Your task to perform on an android device: When is my next appointment? Image 0: 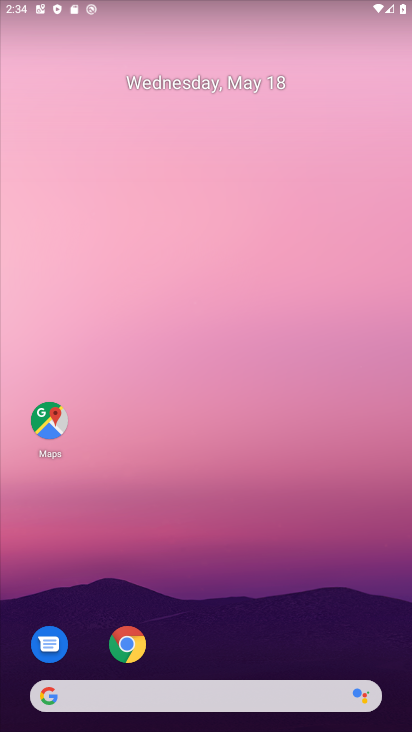
Step 0: drag from (179, 722) to (160, 185)
Your task to perform on an android device: When is my next appointment? Image 1: 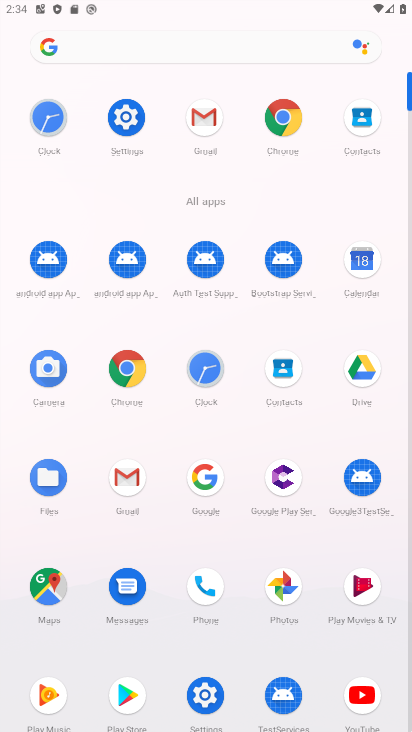
Step 1: click (359, 259)
Your task to perform on an android device: When is my next appointment? Image 2: 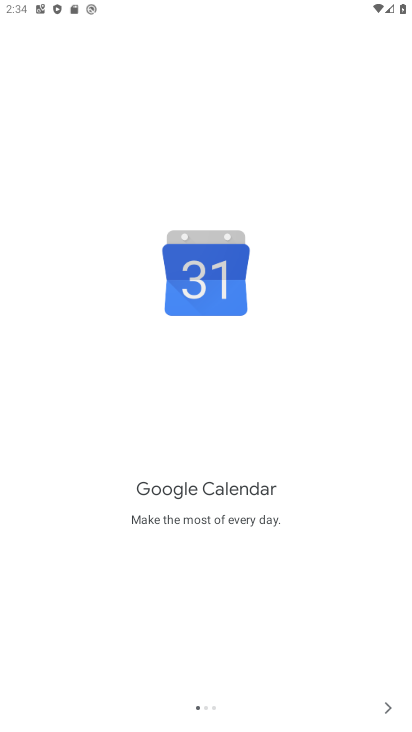
Step 2: click (391, 704)
Your task to perform on an android device: When is my next appointment? Image 3: 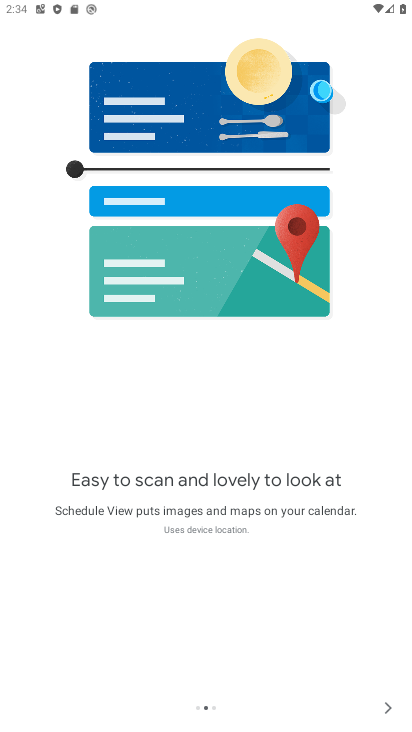
Step 3: click (393, 706)
Your task to perform on an android device: When is my next appointment? Image 4: 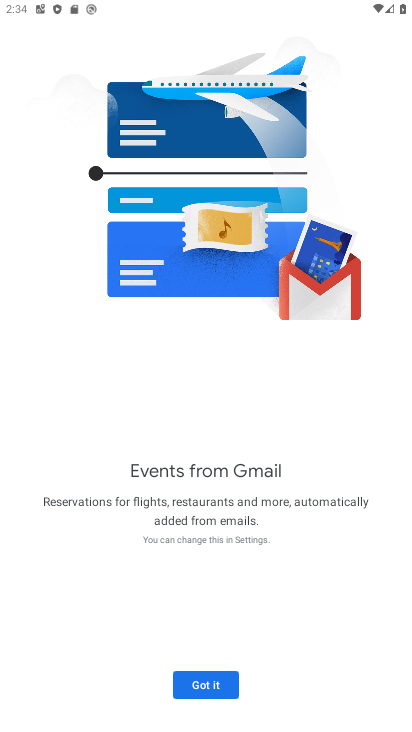
Step 4: click (208, 689)
Your task to perform on an android device: When is my next appointment? Image 5: 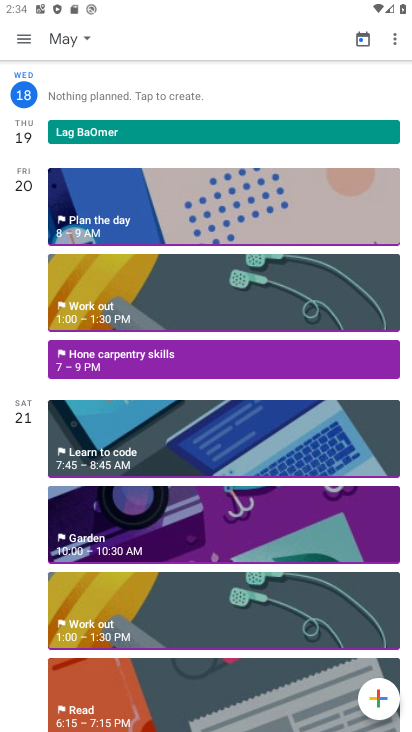
Step 5: task complete